Your task to perform on an android device: Set the phone to "Do not disturb". Image 0: 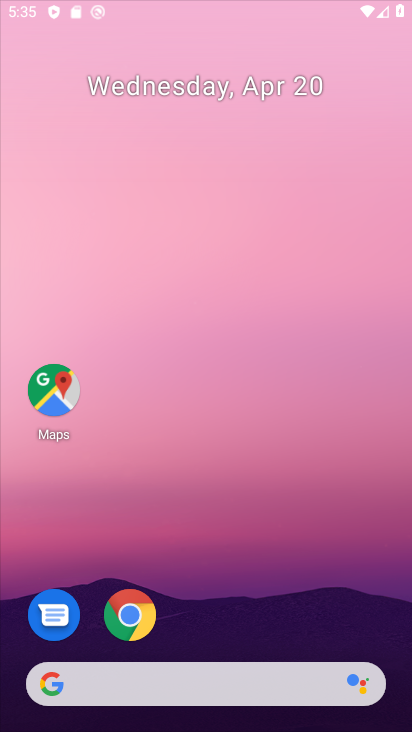
Step 0: click (47, 354)
Your task to perform on an android device: Set the phone to "Do not disturb". Image 1: 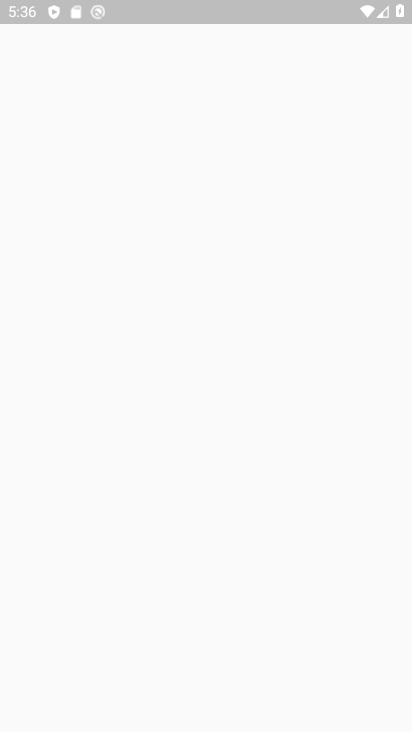
Step 1: click (61, 381)
Your task to perform on an android device: Set the phone to "Do not disturb". Image 2: 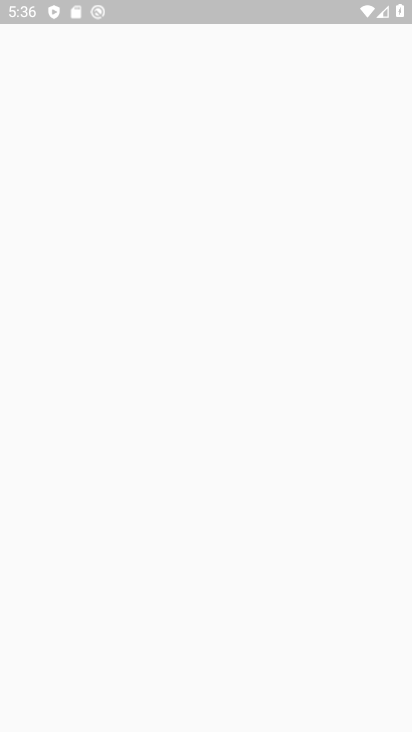
Step 2: press home button
Your task to perform on an android device: Set the phone to "Do not disturb". Image 3: 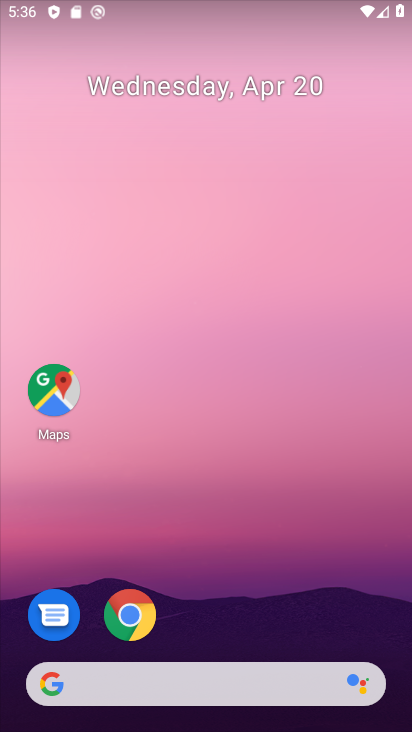
Step 3: drag from (199, 617) to (201, 31)
Your task to perform on an android device: Set the phone to "Do not disturb". Image 4: 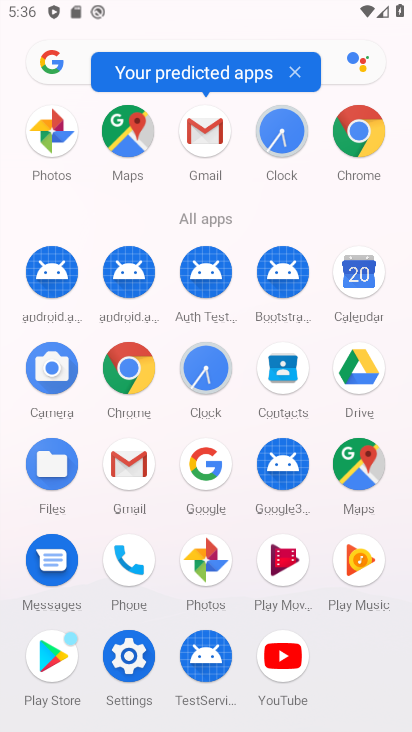
Step 4: click (140, 656)
Your task to perform on an android device: Set the phone to "Do not disturb". Image 5: 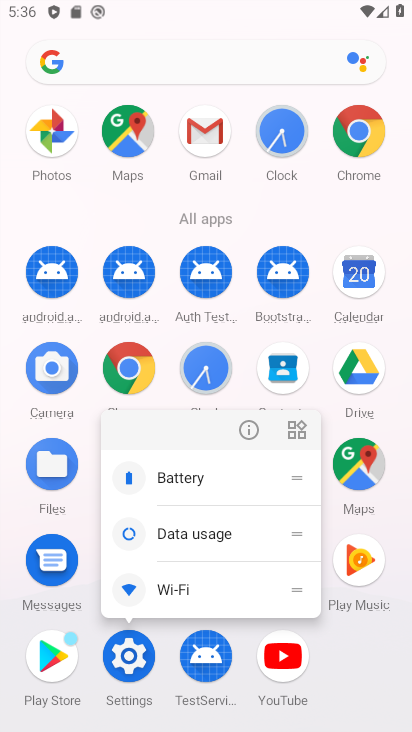
Step 5: click (110, 677)
Your task to perform on an android device: Set the phone to "Do not disturb". Image 6: 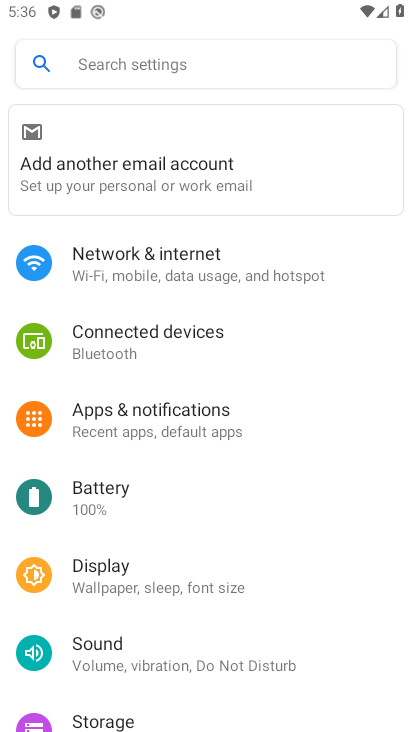
Step 6: click (112, 656)
Your task to perform on an android device: Set the phone to "Do not disturb". Image 7: 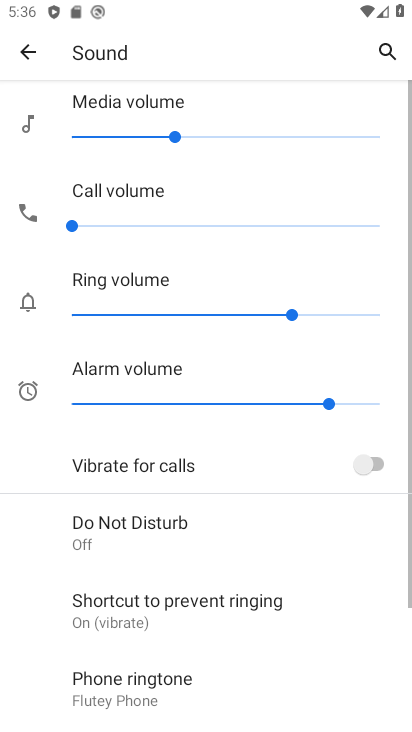
Step 7: click (96, 540)
Your task to perform on an android device: Set the phone to "Do not disturb". Image 8: 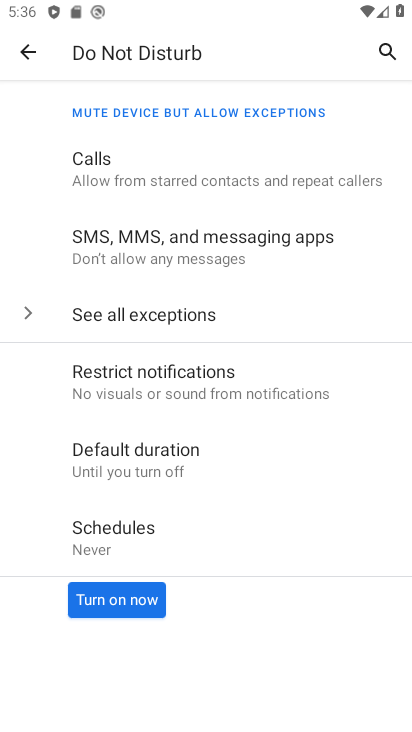
Step 8: click (122, 592)
Your task to perform on an android device: Set the phone to "Do not disturb". Image 9: 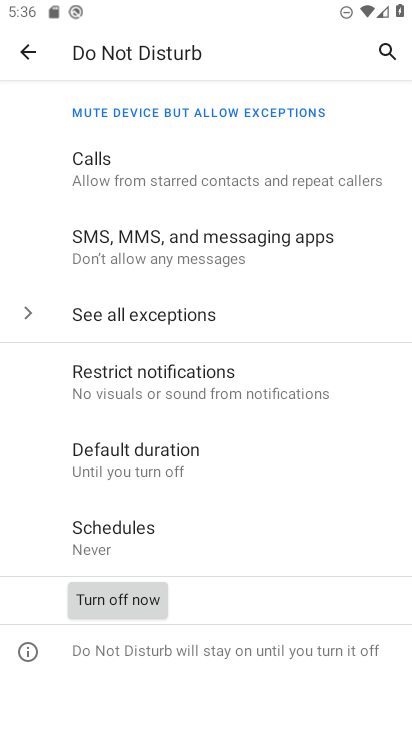
Step 9: task complete